Your task to perform on an android device: Is it going to rain this weekend? Image 0: 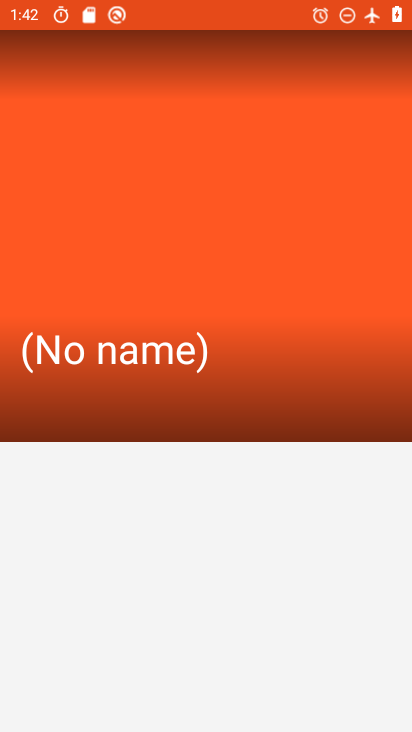
Step 0: drag from (287, 0) to (411, 62)
Your task to perform on an android device: Is it going to rain this weekend? Image 1: 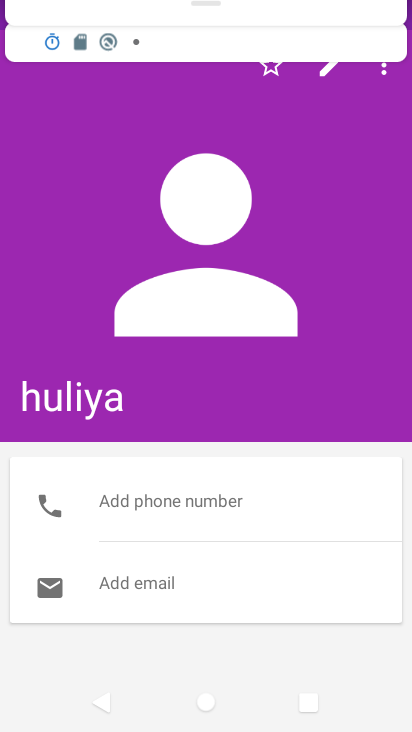
Step 1: press home button
Your task to perform on an android device: Is it going to rain this weekend? Image 2: 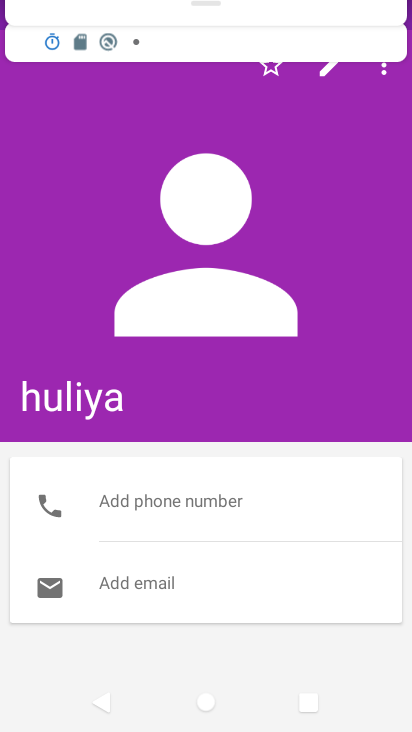
Step 2: drag from (411, 62) to (367, 139)
Your task to perform on an android device: Is it going to rain this weekend? Image 3: 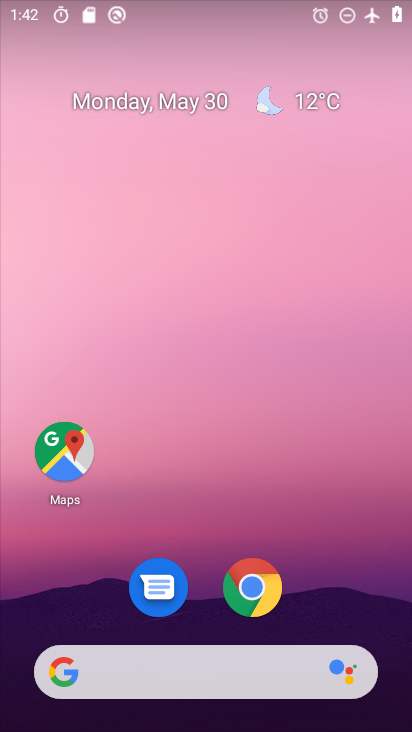
Step 3: click (313, 105)
Your task to perform on an android device: Is it going to rain this weekend? Image 4: 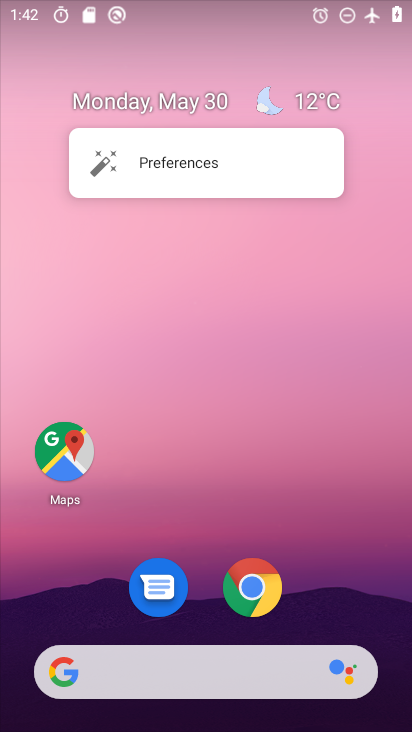
Step 4: click (319, 97)
Your task to perform on an android device: Is it going to rain this weekend? Image 5: 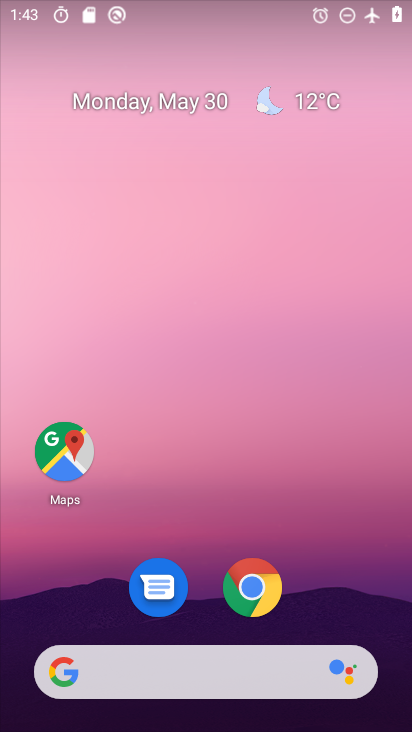
Step 5: click (319, 98)
Your task to perform on an android device: Is it going to rain this weekend? Image 6: 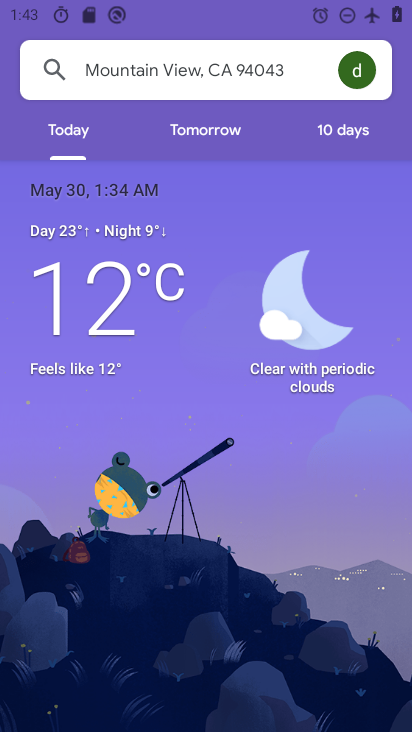
Step 6: click (318, 134)
Your task to perform on an android device: Is it going to rain this weekend? Image 7: 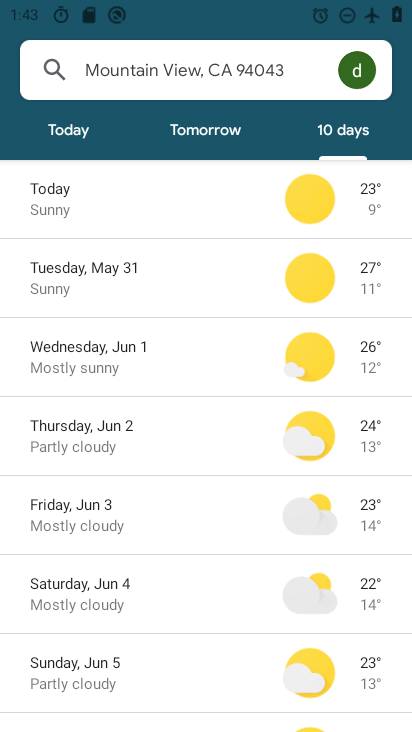
Step 7: task complete